Your task to perform on an android device: Go to ESPN.com Image 0: 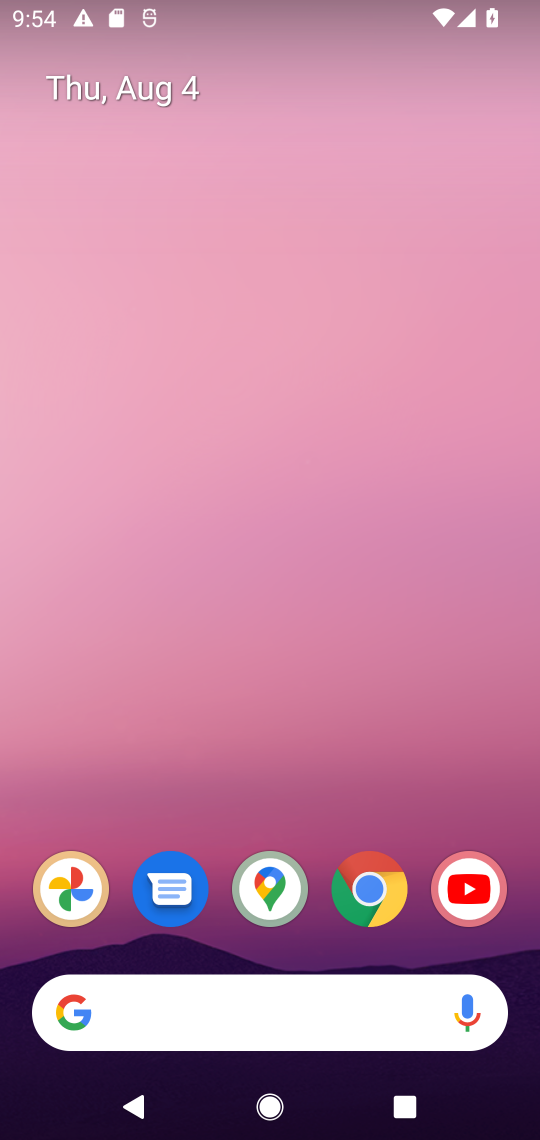
Step 0: drag from (330, 788) to (363, 235)
Your task to perform on an android device: Go to ESPN.com Image 1: 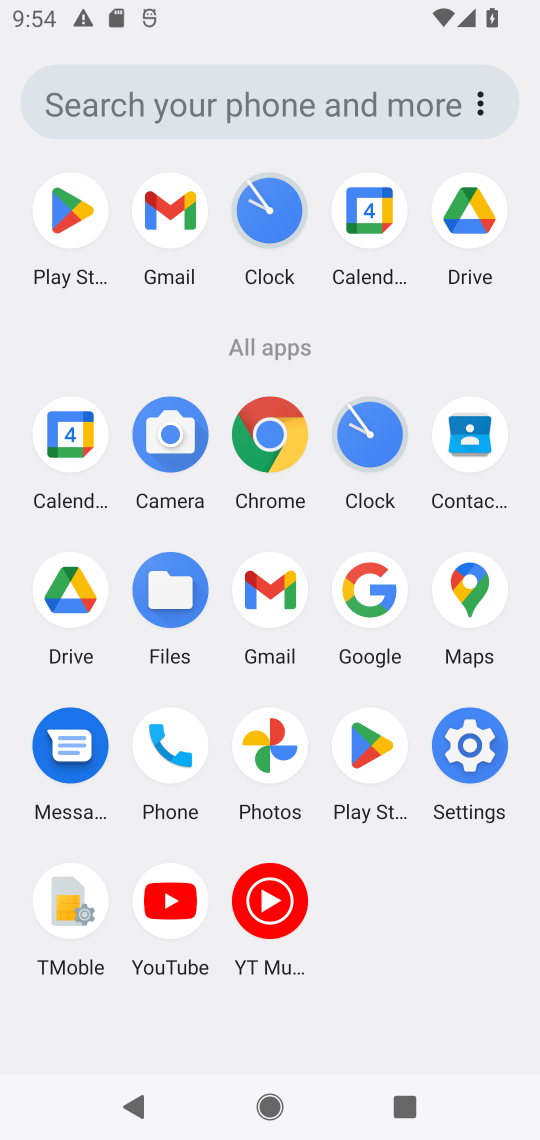
Step 1: click (279, 447)
Your task to perform on an android device: Go to ESPN.com Image 2: 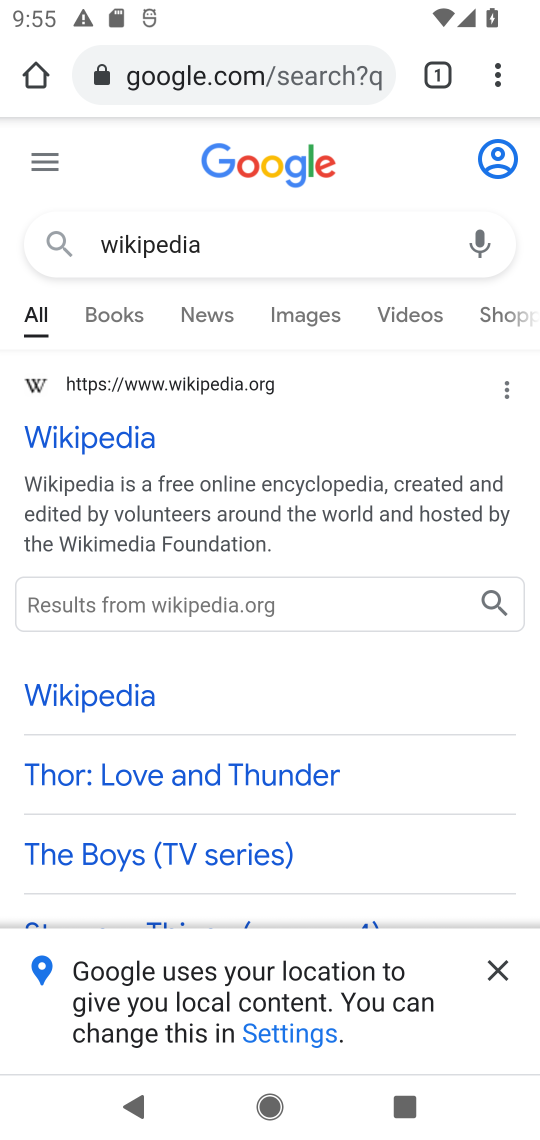
Step 2: click (303, 70)
Your task to perform on an android device: Go to ESPN.com Image 3: 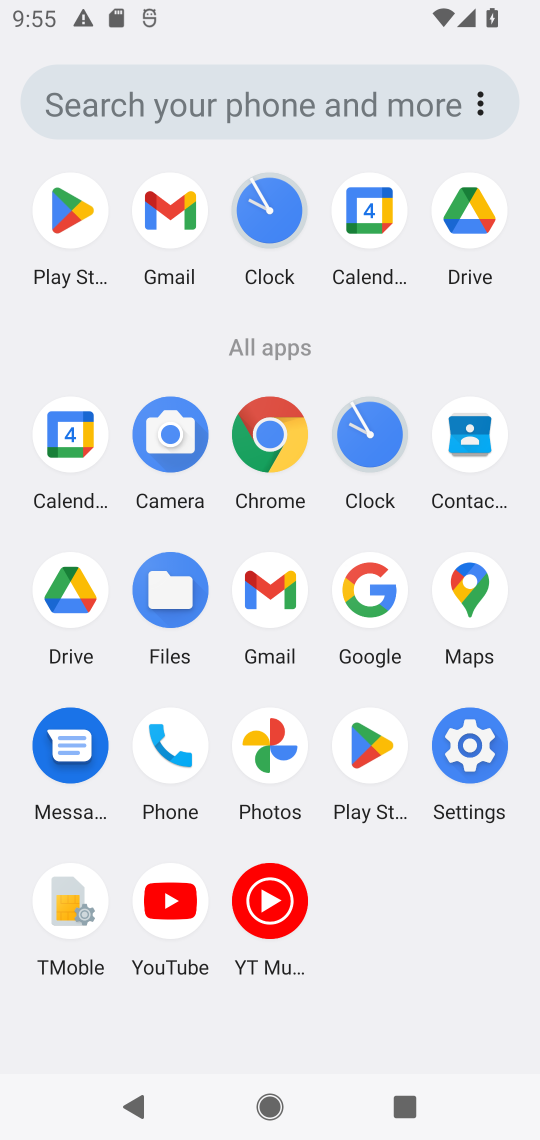
Step 3: click (279, 450)
Your task to perform on an android device: Go to ESPN.com Image 4: 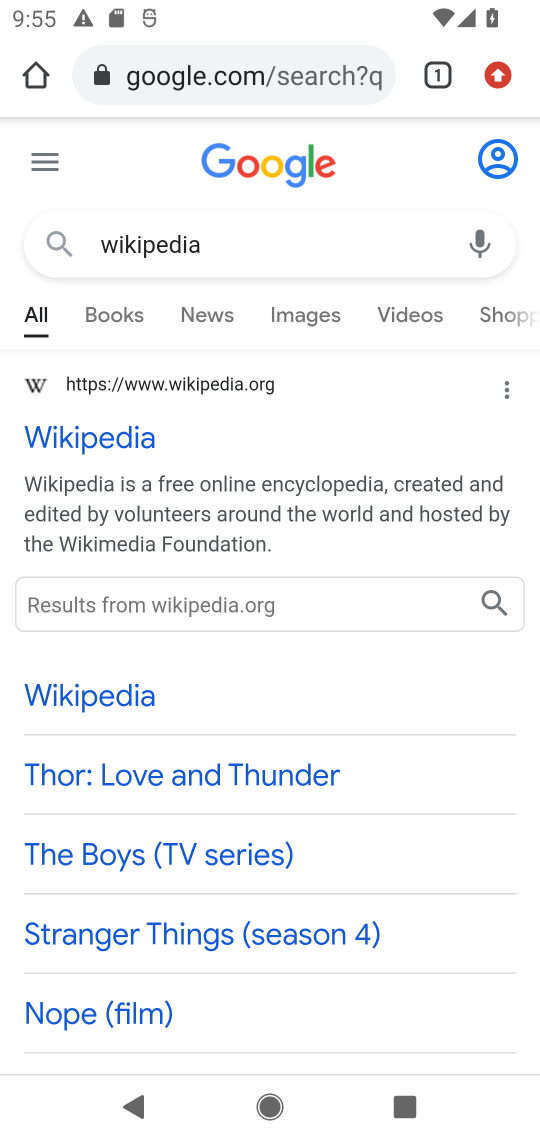
Step 4: click (262, 83)
Your task to perform on an android device: Go to ESPN.com Image 5: 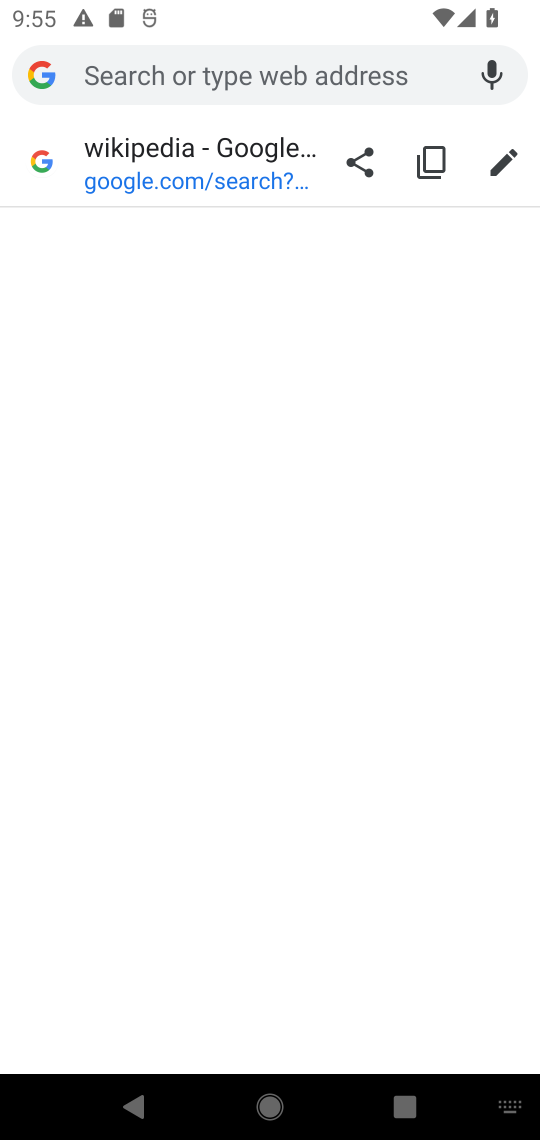
Step 5: type "espn.com"
Your task to perform on an android device: Go to ESPN.com Image 6: 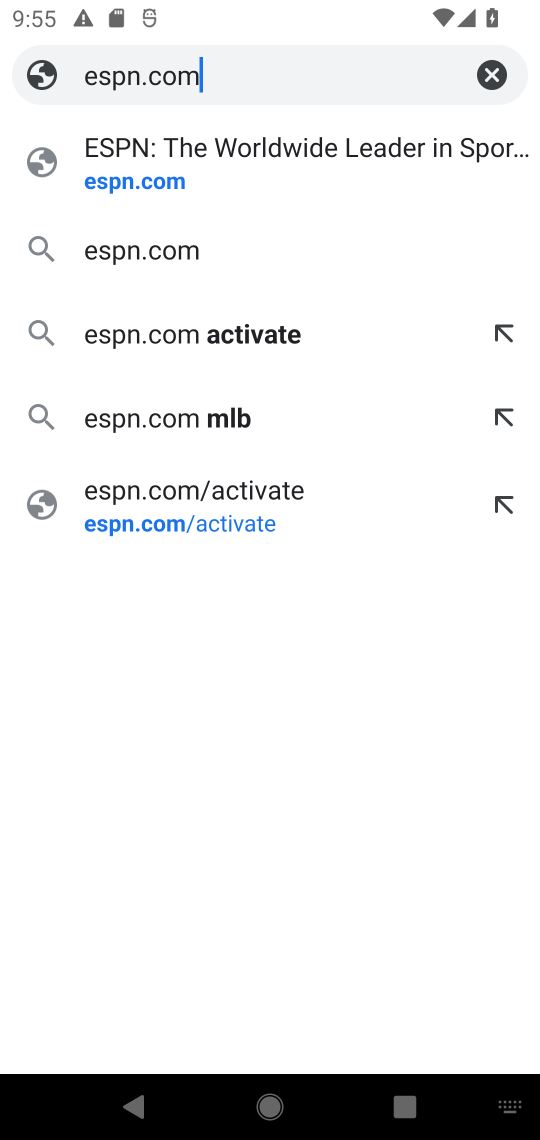
Step 6: click (257, 158)
Your task to perform on an android device: Go to ESPN.com Image 7: 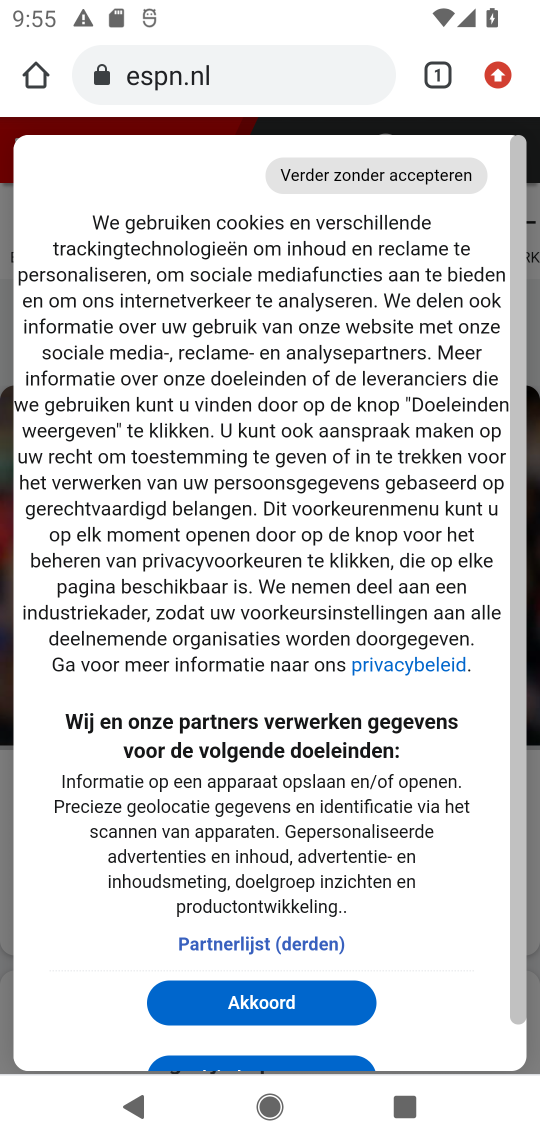
Step 7: task complete